Your task to perform on an android device: Go to network settings Image 0: 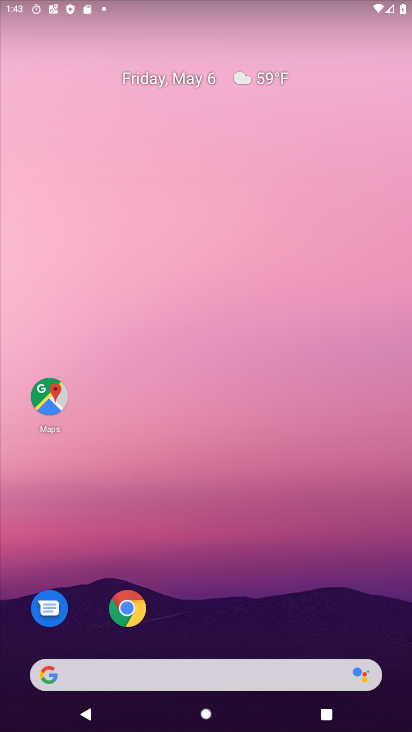
Step 0: drag from (175, 609) to (247, 202)
Your task to perform on an android device: Go to network settings Image 1: 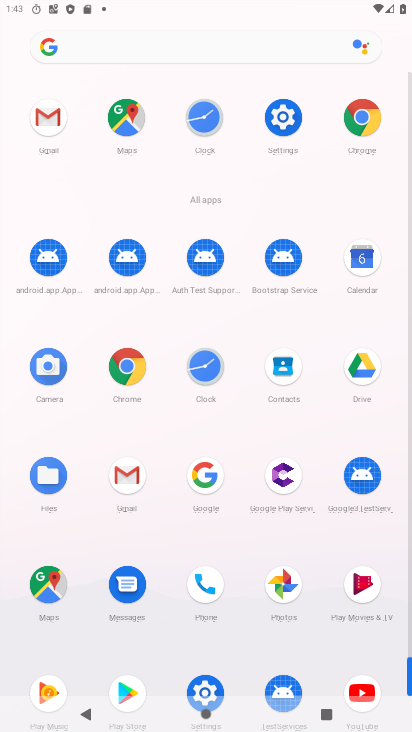
Step 1: click (210, 681)
Your task to perform on an android device: Go to network settings Image 2: 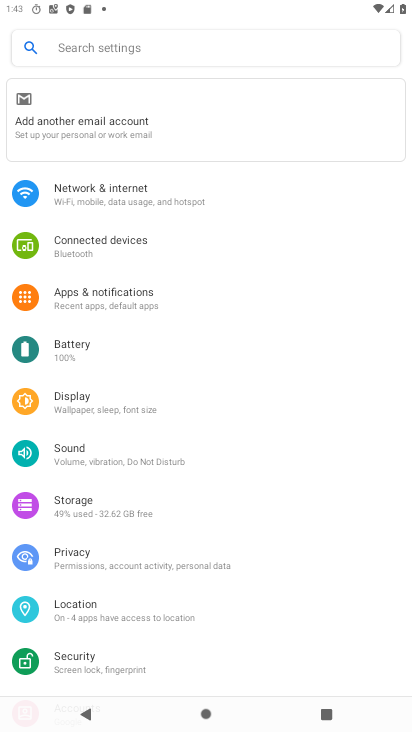
Step 2: click (161, 199)
Your task to perform on an android device: Go to network settings Image 3: 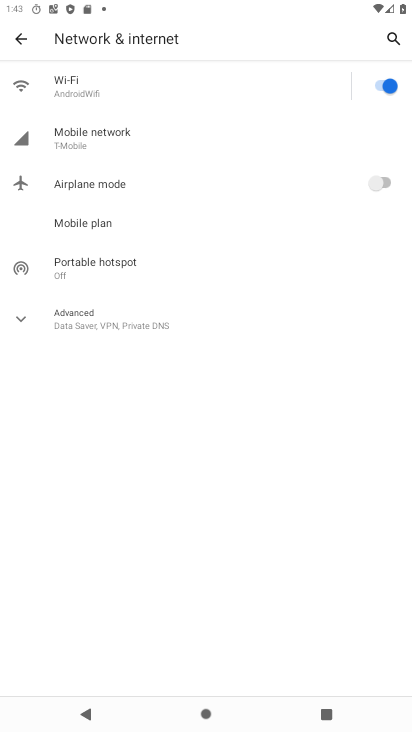
Step 3: task complete